Your task to perform on an android device: Show the shopping cart on walmart. Add "sony triple a" to the cart on walmart Image 0: 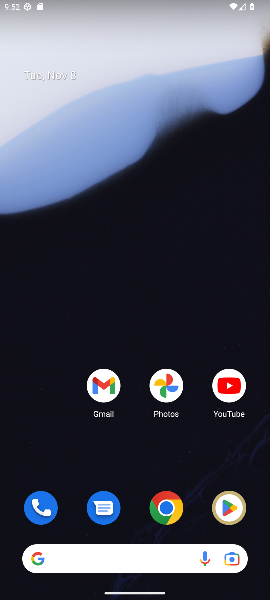
Step 0: click (170, 507)
Your task to perform on an android device: Show the shopping cart on walmart. Add "sony triple a" to the cart on walmart Image 1: 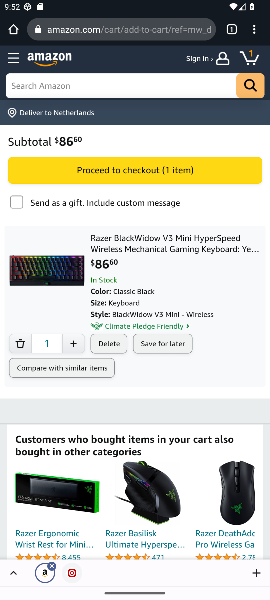
Step 1: click (64, 32)
Your task to perform on an android device: Show the shopping cart on walmart. Add "sony triple a" to the cart on walmart Image 2: 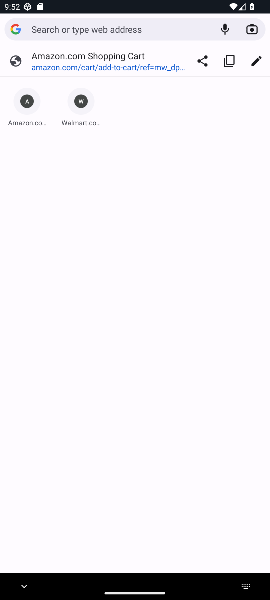
Step 2: type "walmart"
Your task to perform on an android device: Show the shopping cart on walmart. Add "sony triple a" to the cart on walmart Image 3: 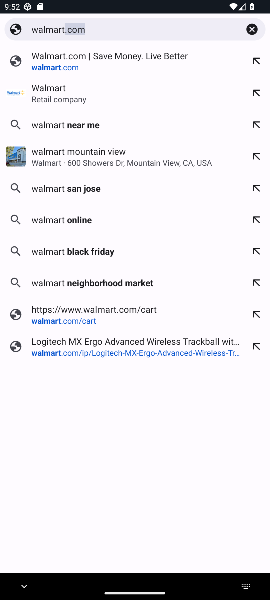
Step 3: click (53, 63)
Your task to perform on an android device: Show the shopping cart on walmart. Add "sony triple a" to the cart on walmart Image 4: 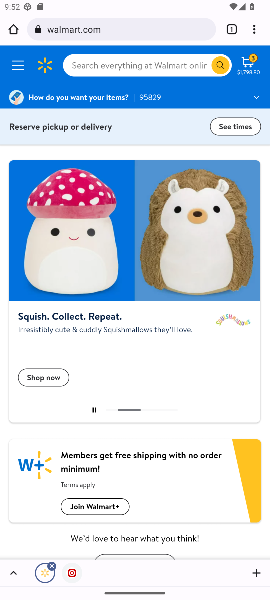
Step 4: click (82, 69)
Your task to perform on an android device: Show the shopping cart on walmart. Add "sony triple a" to the cart on walmart Image 5: 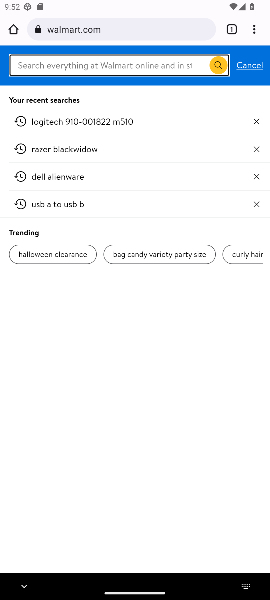
Step 5: type "sony triple"
Your task to perform on an android device: Show the shopping cart on walmart. Add "sony triple a" to the cart on walmart Image 6: 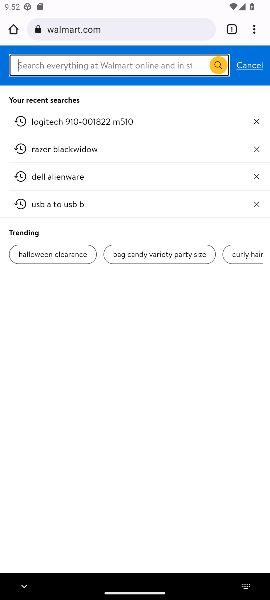
Step 6: type ""
Your task to perform on an android device: Show the shopping cart on walmart. Add "sony triple a" to the cart on walmart Image 7: 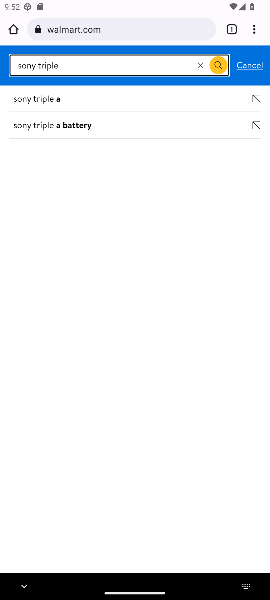
Step 7: click (29, 98)
Your task to perform on an android device: Show the shopping cart on walmart. Add "sony triple a" to the cart on walmart Image 8: 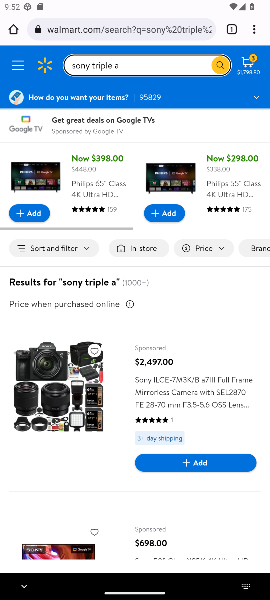
Step 8: drag from (34, 465) to (60, 282)
Your task to perform on an android device: Show the shopping cart on walmart. Add "sony triple a" to the cart on walmart Image 9: 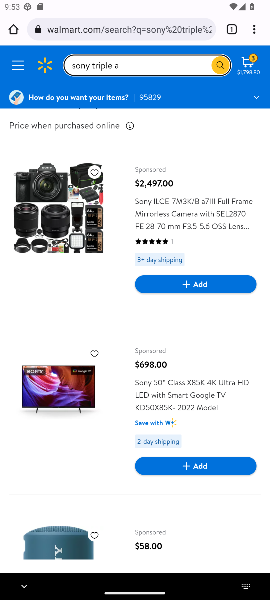
Step 9: click (63, 388)
Your task to perform on an android device: Show the shopping cart on walmart. Add "sony triple a" to the cart on walmart Image 10: 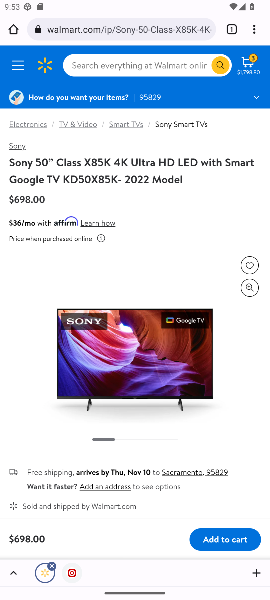
Step 10: drag from (34, 428) to (63, 243)
Your task to perform on an android device: Show the shopping cart on walmart. Add "sony triple a" to the cart on walmart Image 11: 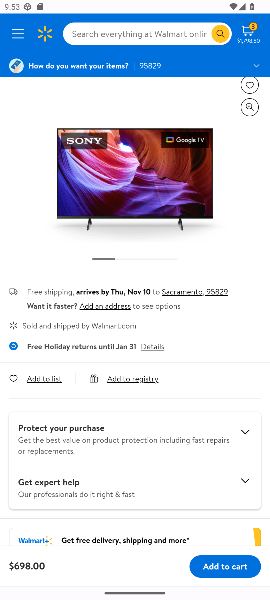
Step 11: click (218, 570)
Your task to perform on an android device: Show the shopping cart on walmart. Add "sony triple a" to the cart on walmart Image 12: 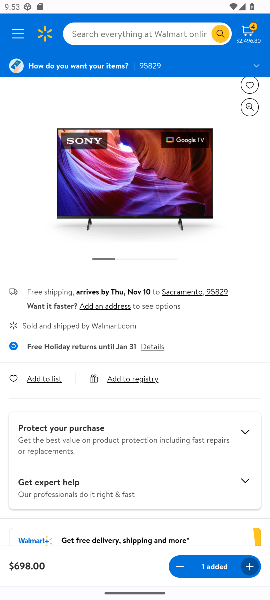
Step 12: click (249, 31)
Your task to perform on an android device: Show the shopping cart on walmart. Add "sony triple a" to the cart on walmart Image 13: 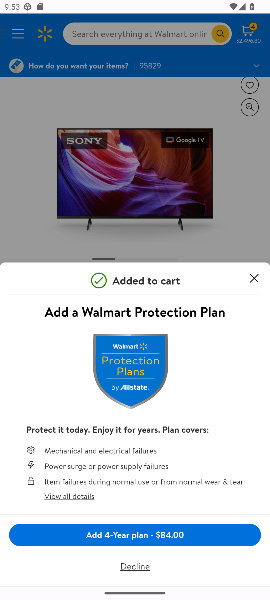
Step 13: click (256, 276)
Your task to perform on an android device: Show the shopping cart on walmart. Add "sony triple a" to the cart on walmart Image 14: 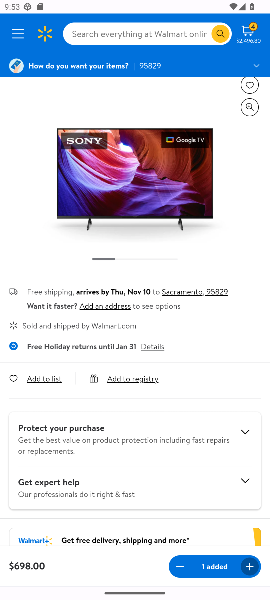
Step 14: click (251, 31)
Your task to perform on an android device: Show the shopping cart on walmart. Add "sony triple a" to the cart on walmart Image 15: 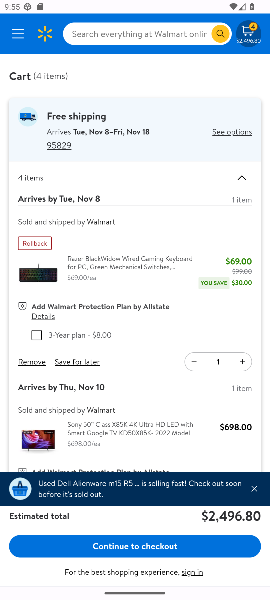
Step 15: click (123, 545)
Your task to perform on an android device: Show the shopping cart on walmart. Add "sony triple a" to the cart on walmart Image 16: 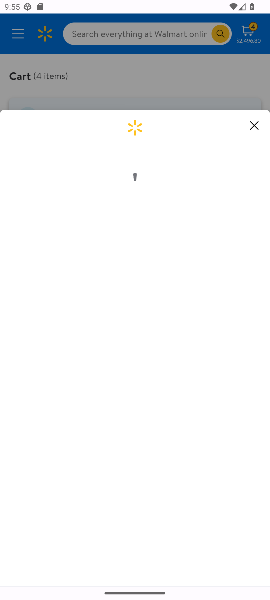
Step 16: click (253, 126)
Your task to perform on an android device: Show the shopping cart on walmart. Add "sony triple a" to the cart on walmart Image 17: 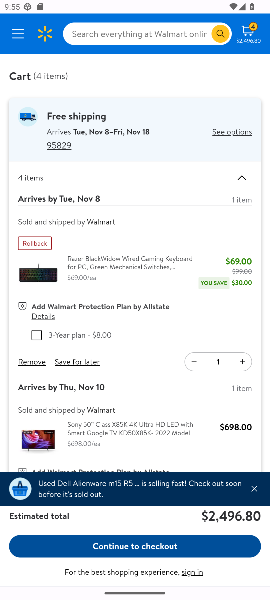
Step 17: click (254, 490)
Your task to perform on an android device: Show the shopping cart on walmart. Add "sony triple a" to the cart on walmart Image 18: 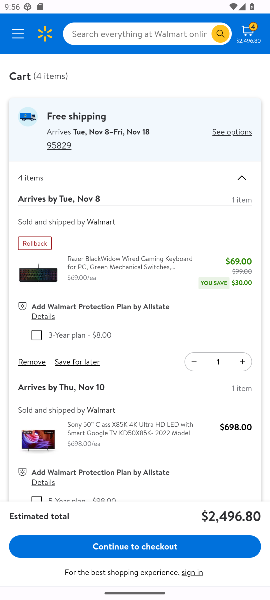
Step 18: click (135, 546)
Your task to perform on an android device: Show the shopping cart on walmart. Add "sony triple a" to the cart on walmart Image 19: 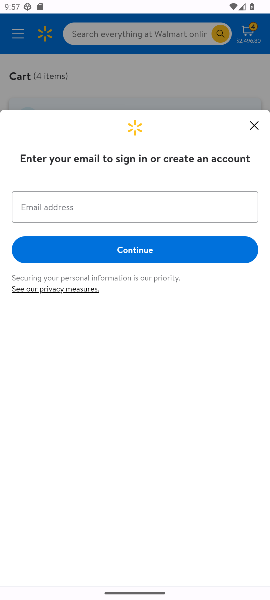
Step 19: task complete